Your task to perform on an android device: Go to settings Image 0: 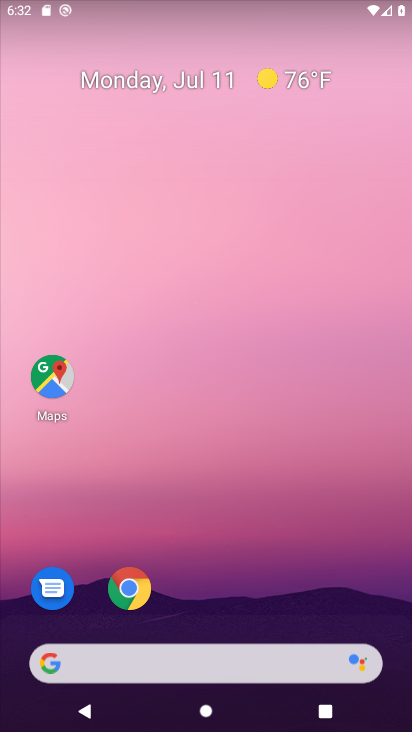
Step 0: drag from (265, 563) to (141, 137)
Your task to perform on an android device: Go to settings Image 1: 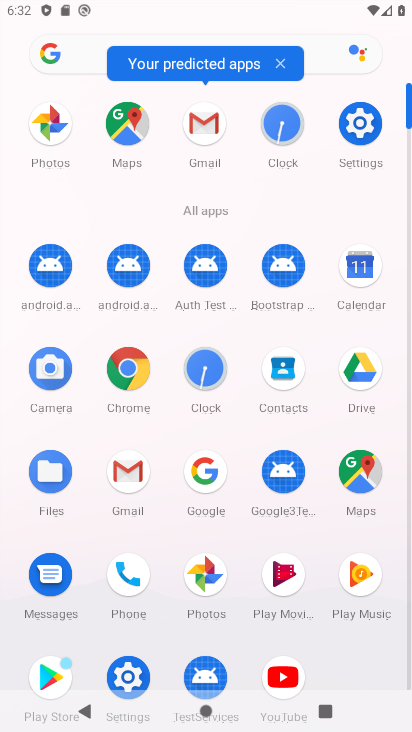
Step 1: click (361, 131)
Your task to perform on an android device: Go to settings Image 2: 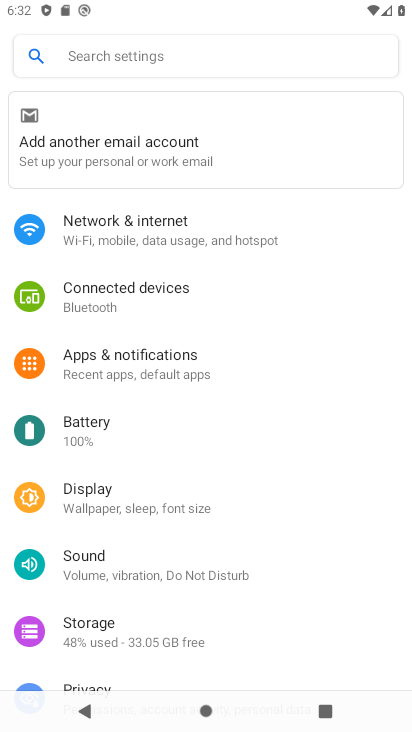
Step 2: task complete